Your task to perform on an android device: stop showing notifications on the lock screen Image 0: 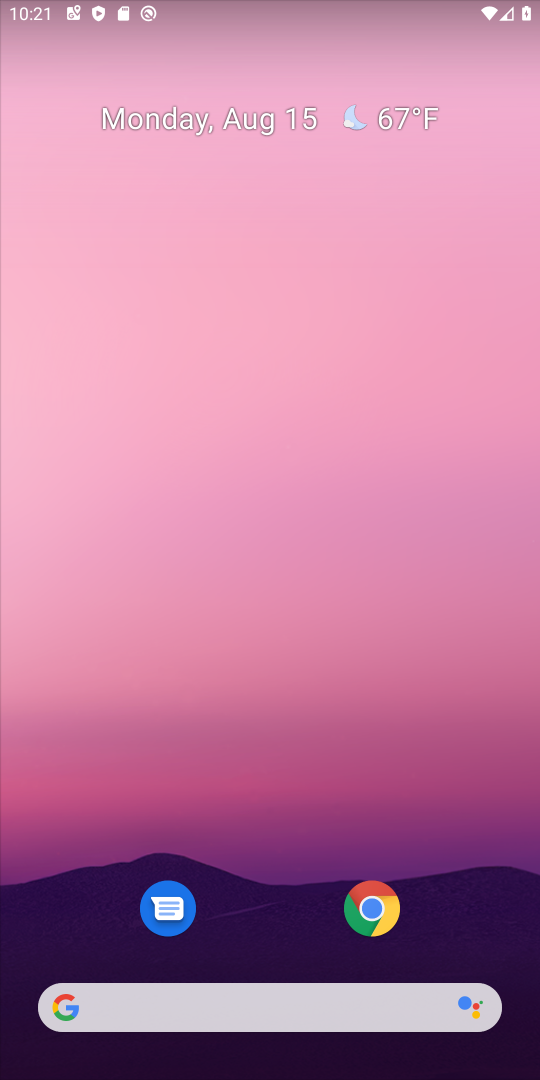
Step 0: drag from (176, 964) to (409, 59)
Your task to perform on an android device: stop showing notifications on the lock screen Image 1: 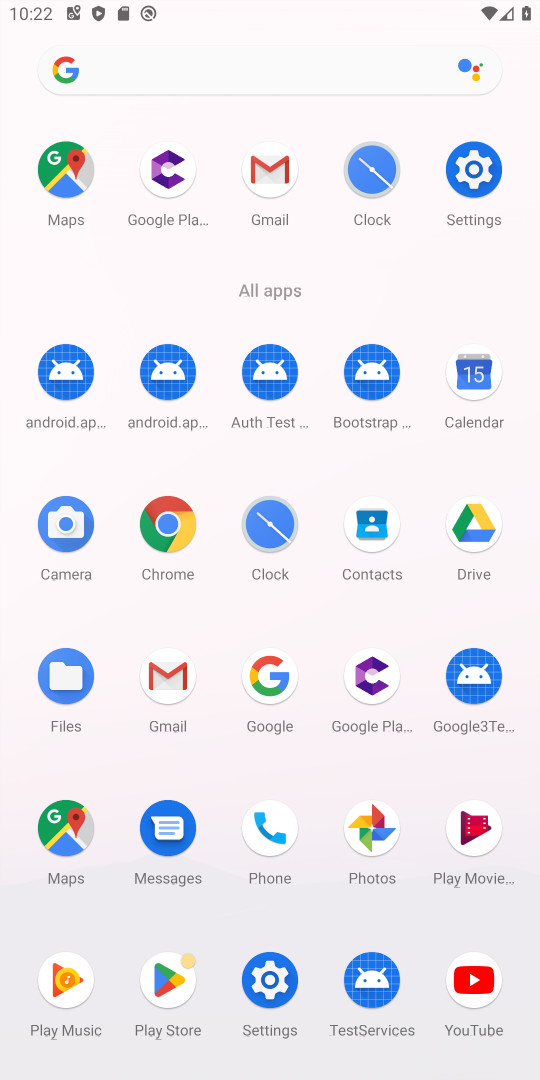
Step 1: click (463, 201)
Your task to perform on an android device: stop showing notifications on the lock screen Image 2: 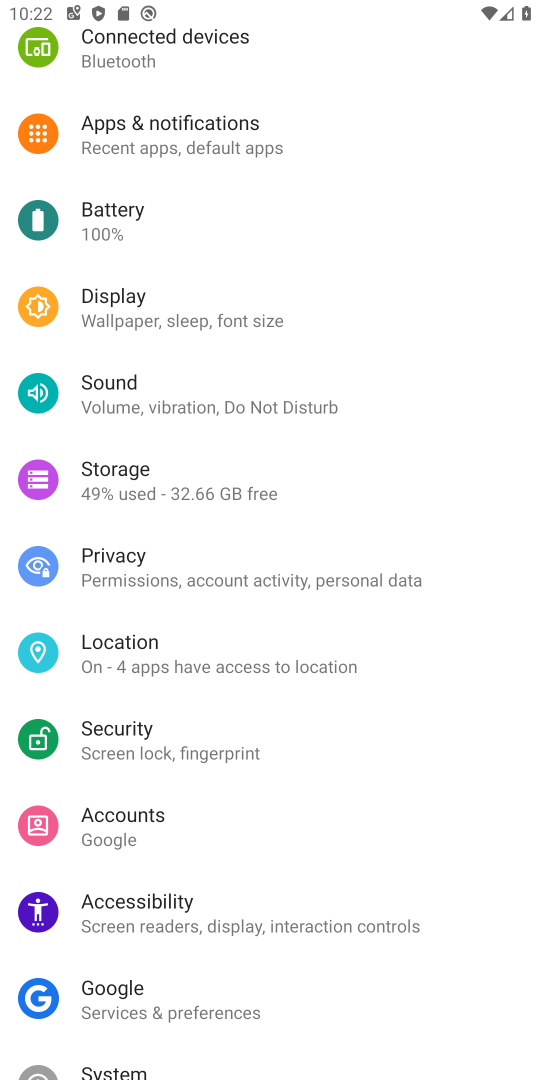
Step 2: click (195, 136)
Your task to perform on an android device: stop showing notifications on the lock screen Image 3: 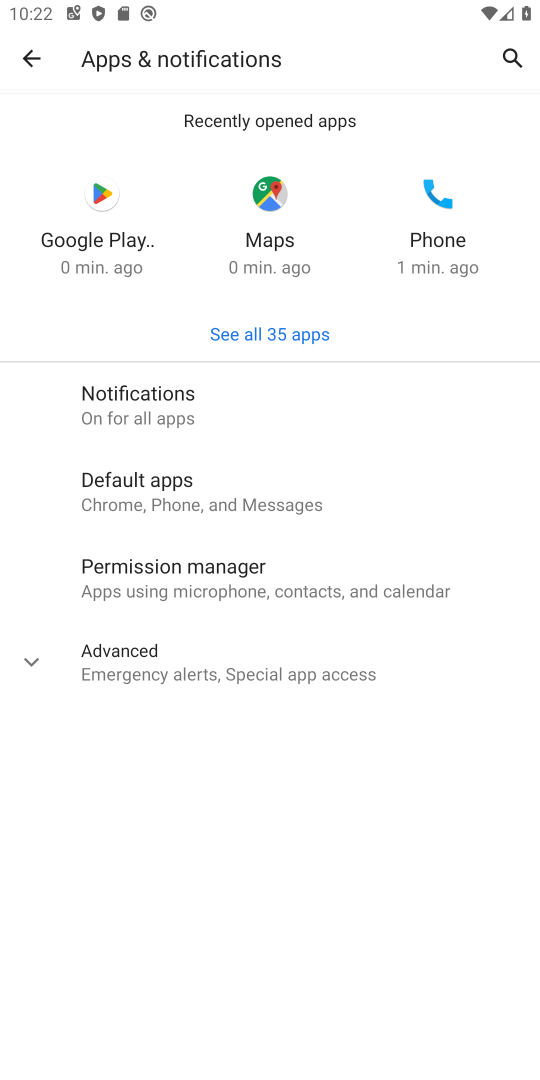
Step 3: click (191, 414)
Your task to perform on an android device: stop showing notifications on the lock screen Image 4: 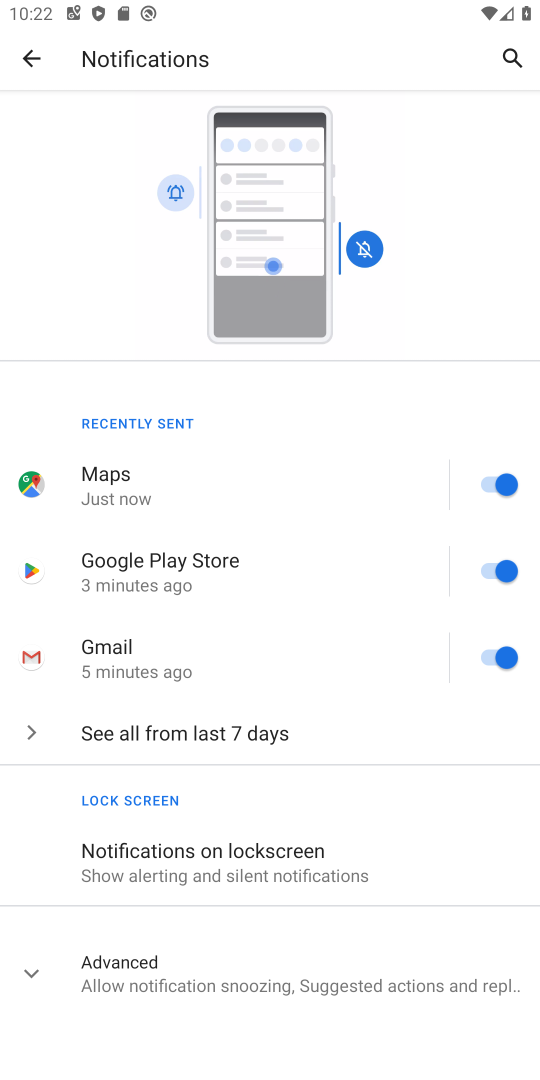
Step 4: click (421, 850)
Your task to perform on an android device: stop showing notifications on the lock screen Image 5: 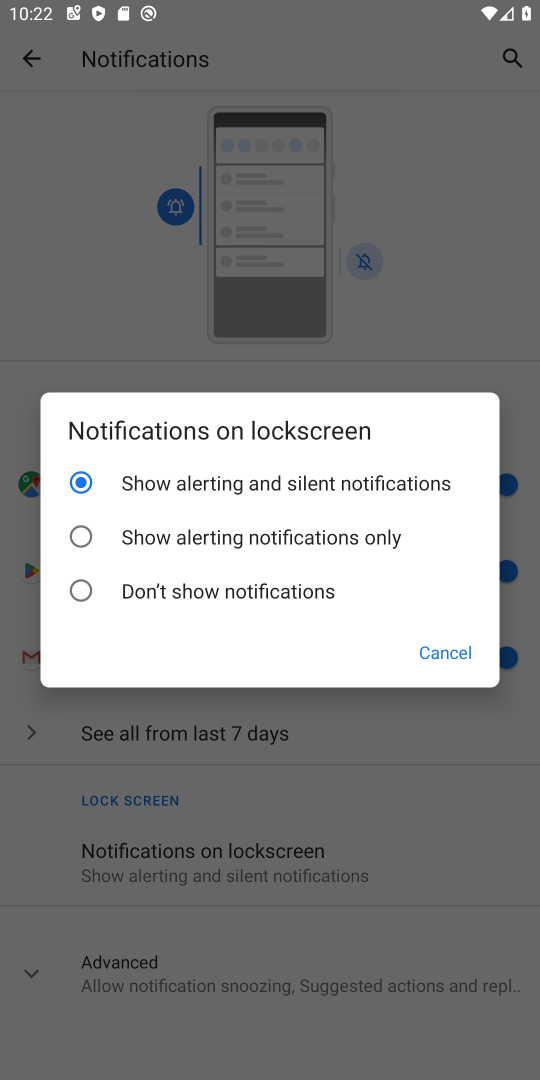
Step 5: click (268, 604)
Your task to perform on an android device: stop showing notifications on the lock screen Image 6: 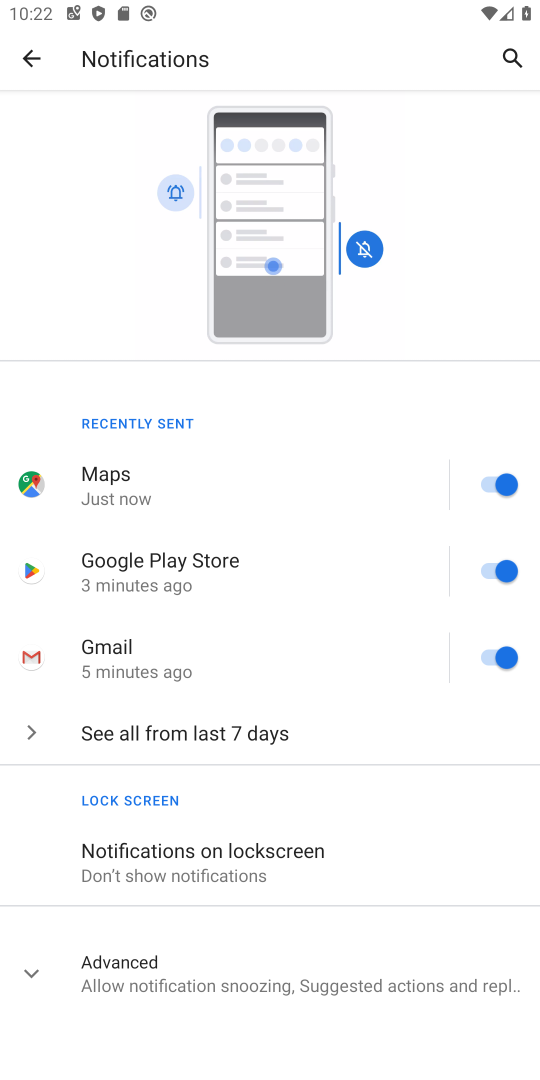
Step 6: task complete